Your task to perform on an android device: Go to Maps Image 0: 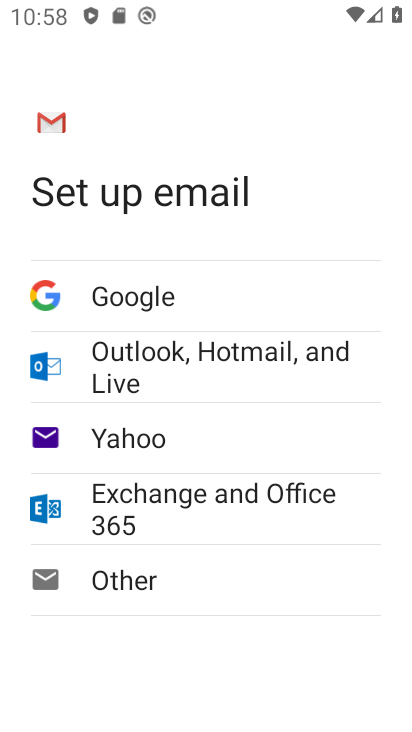
Step 0: press home button
Your task to perform on an android device: Go to Maps Image 1: 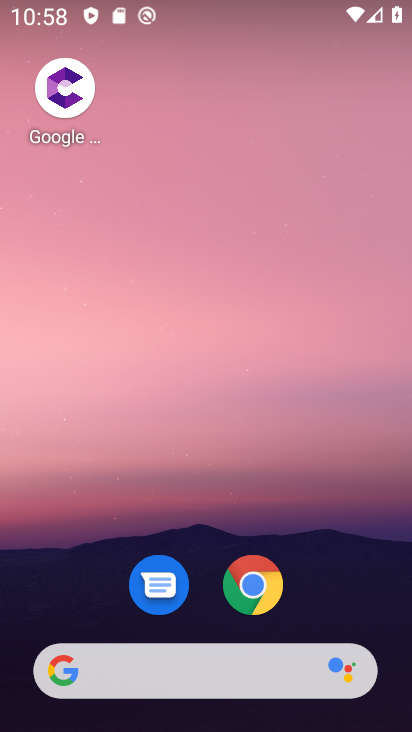
Step 1: drag from (209, 662) to (264, 239)
Your task to perform on an android device: Go to Maps Image 2: 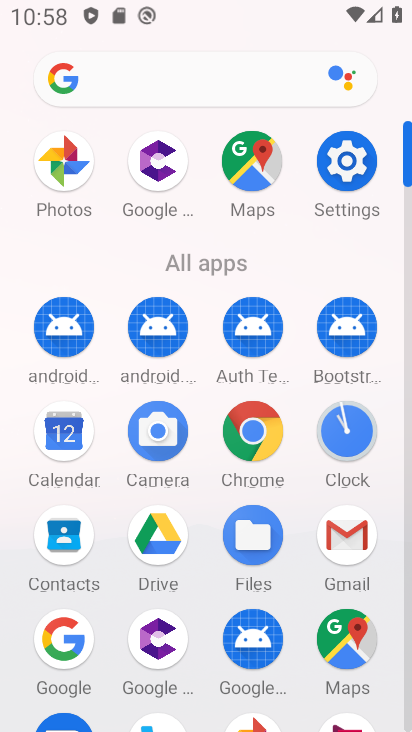
Step 2: click (232, 176)
Your task to perform on an android device: Go to Maps Image 3: 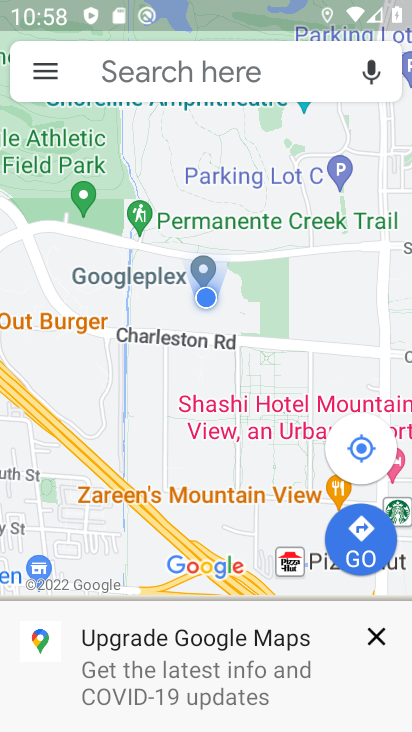
Step 3: task complete